Your task to perform on an android device: What is the news today? Image 0: 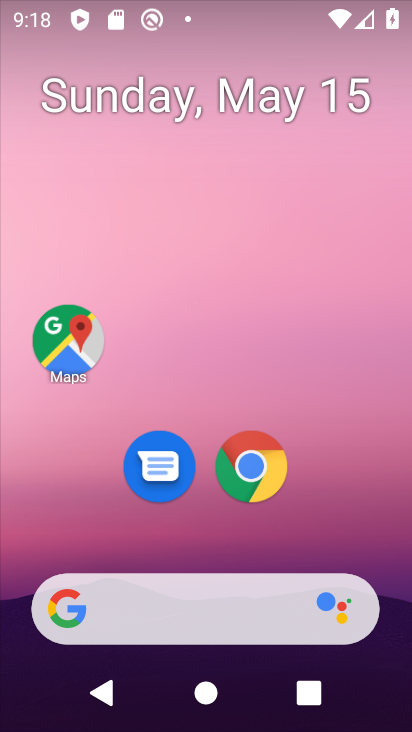
Step 0: drag from (354, 521) to (305, 114)
Your task to perform on an android device: What is the news today? Image 1: 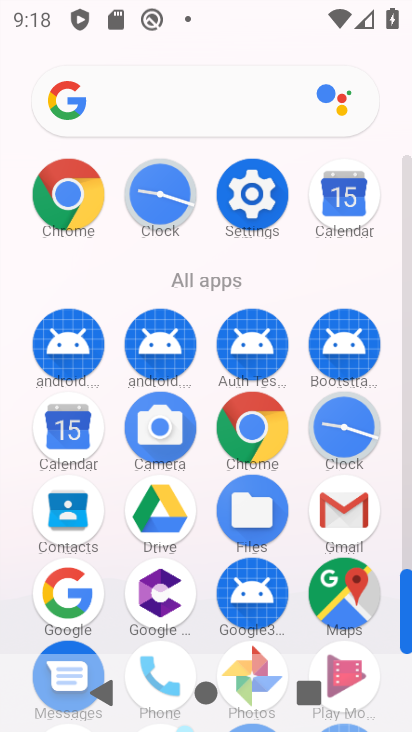
Step 1: click (249, 436)
Your task to perform on an android device: What is the news today? Image 2: 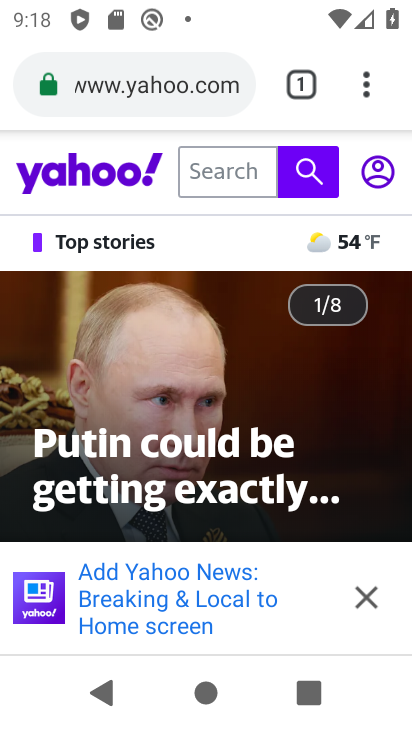
Step 2: click (177, 95)
Your task to perform on an android device: What is the news today? Image 3: 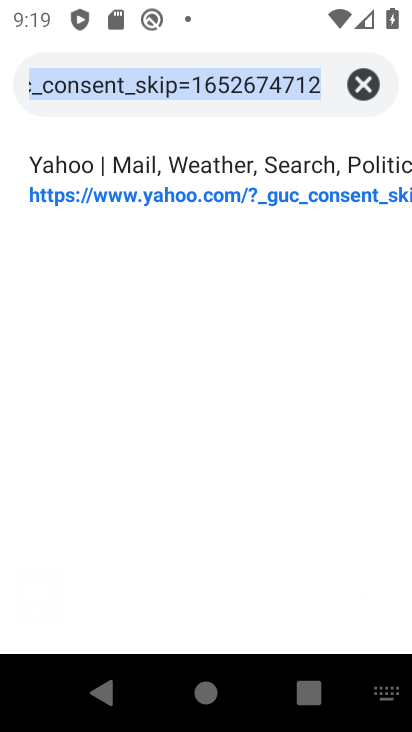
Step 3: type "news"
Your task to perform on an android device: What is the news today? Image 4: 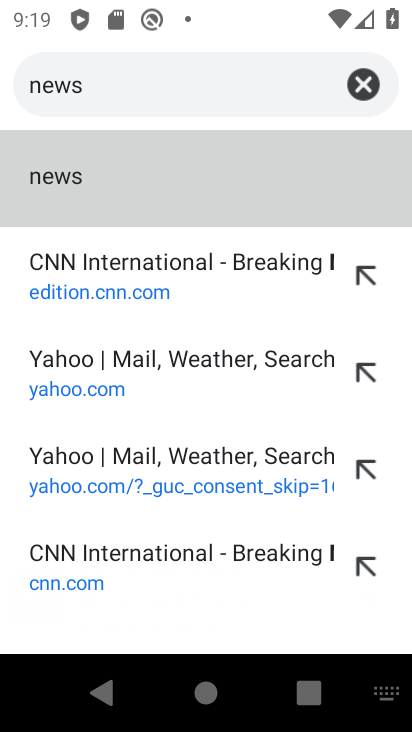
Step 4: click (64, 161)
Your task to perform on an android device: What is the news today? Image 5: 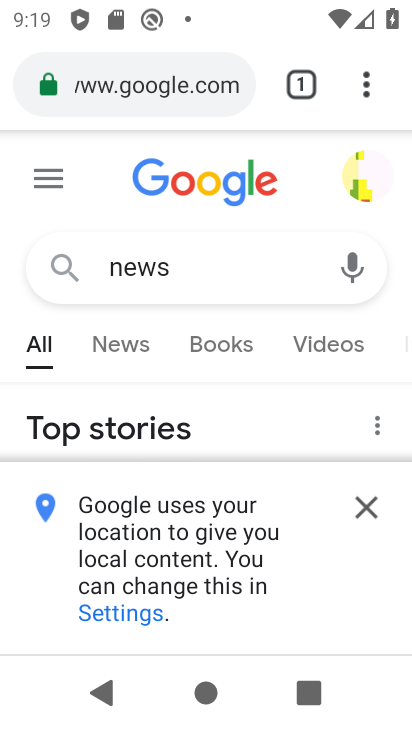
Step 5: click (135, 348)
Your task to perform on an android device: What is the news today? Image 6: 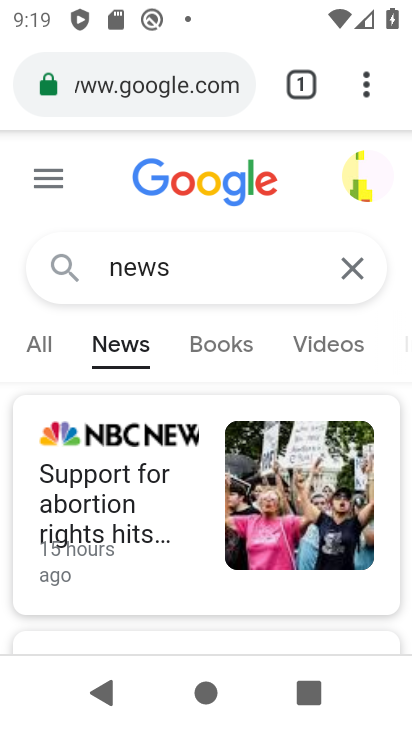
Step 6: task complete